Your task to perform on an android device: Open eBay Image 0: 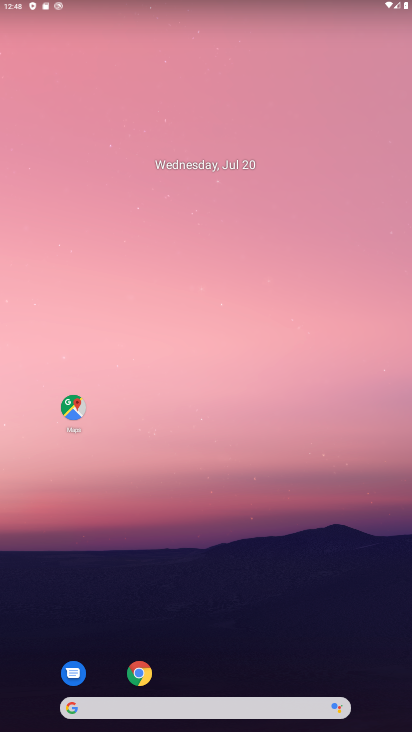
Step 0: click (134, 705)
Your task to perform on an android device: Open eBay Image 1: 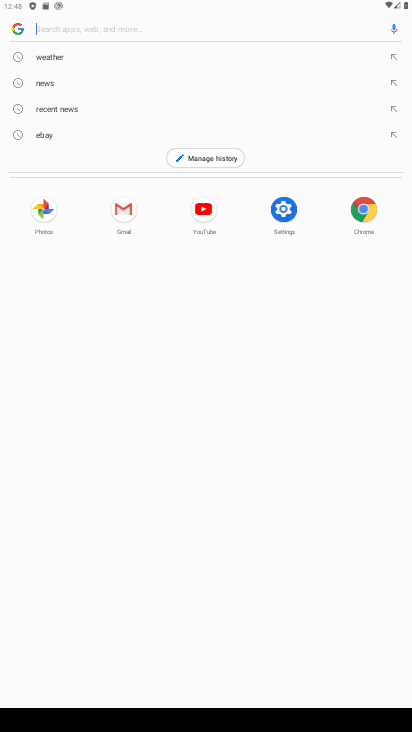
Step 1: click (49, 144)
Your task to perform on an android device: Open eBay Image 2: 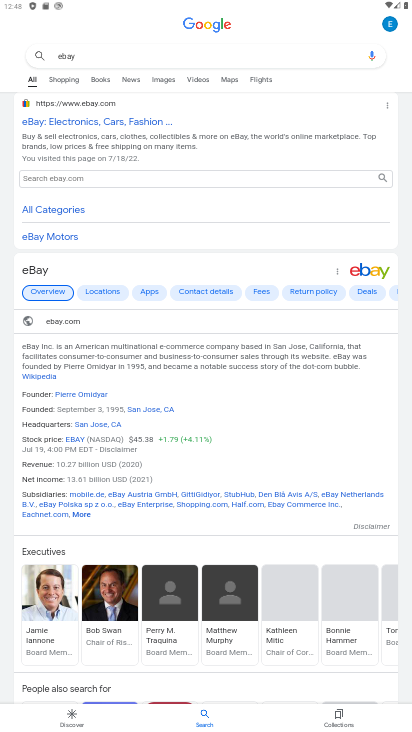
Step 2: task complete